Your task to perform on an android device: Toggle the flashlight Image 0: 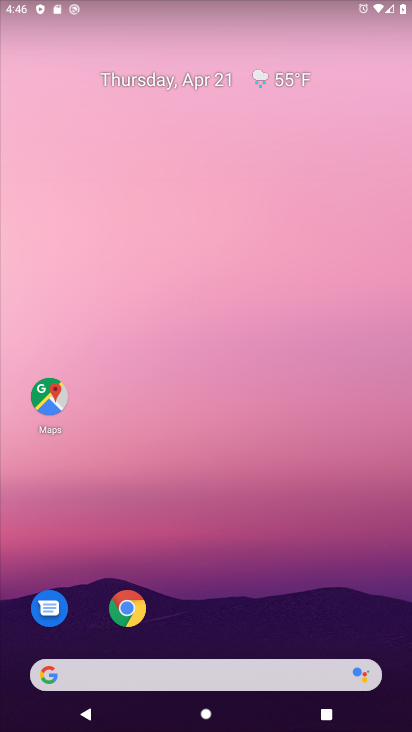
Step 0: drag from (235, 617) to (257, 175)
Your task to perform on an android device: Toggle the flashlight Image 1: 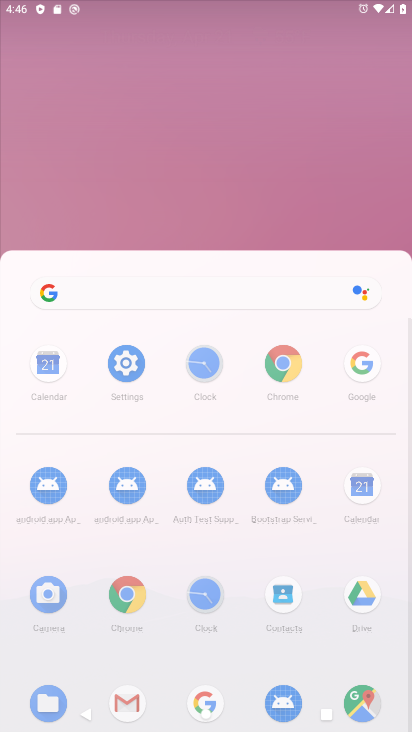
Step 1: drag from (258, 83) to (253, 49)
Your task to perform on an android device: Toggle the flashlight Image 2: 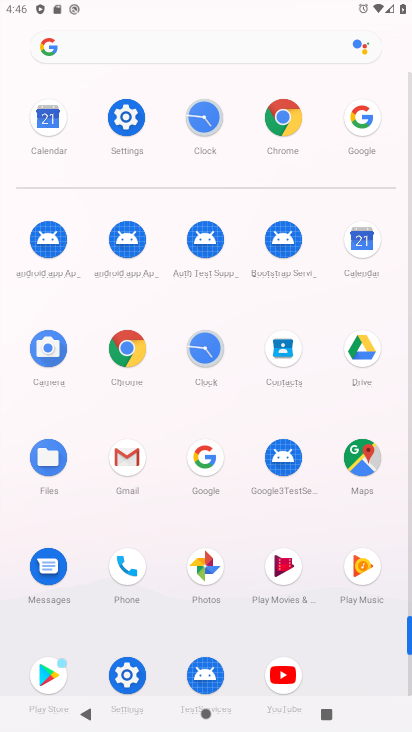
Step 2: click (132, 111)
Your task to perform on an android device: Toggle the flashlight Image 3: 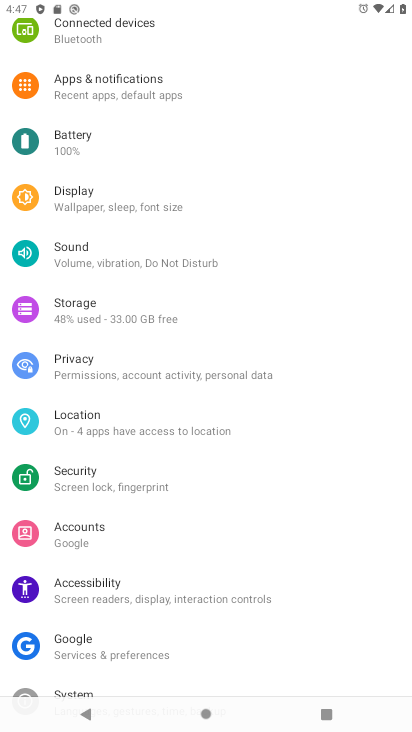
Step 3: task complete